Your task to perform on an android device: Go to eBay Image 0: 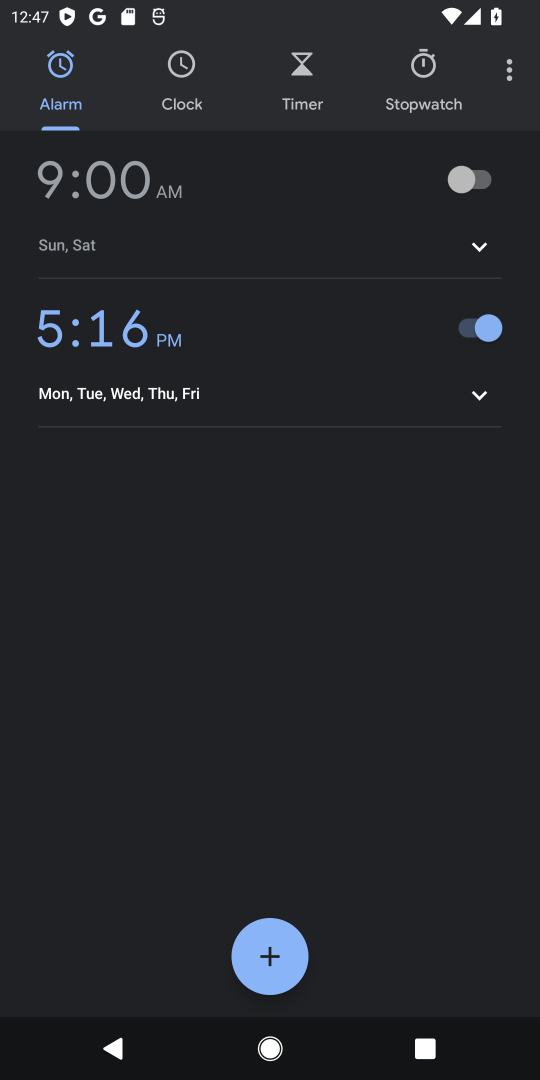
Step 0: press home button
Your task to perform on an android device: Go to eBay Image 1: 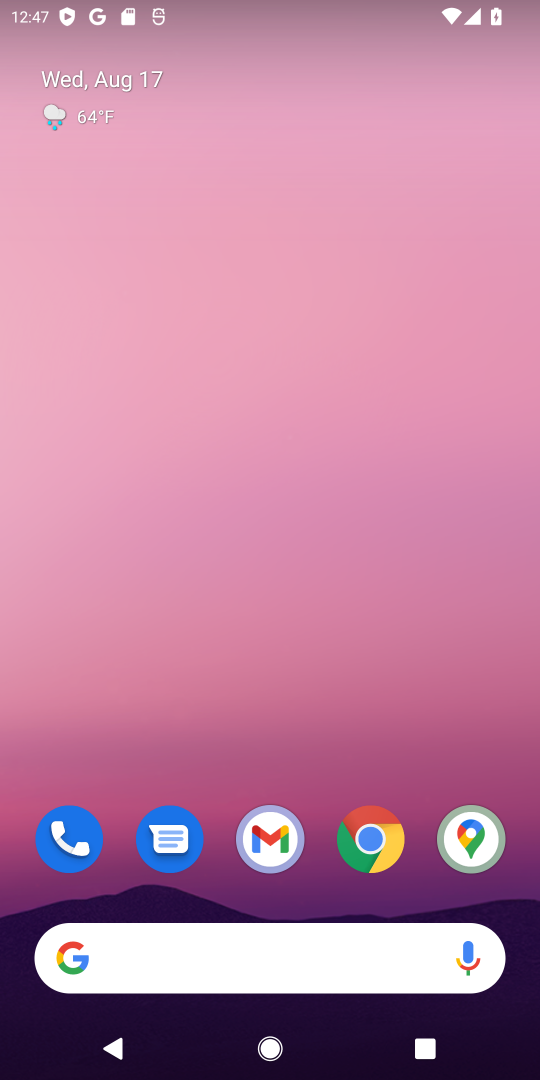
Step 1: click (371, 847)
Your task to perform on an android device: Go to eBay Image 2: 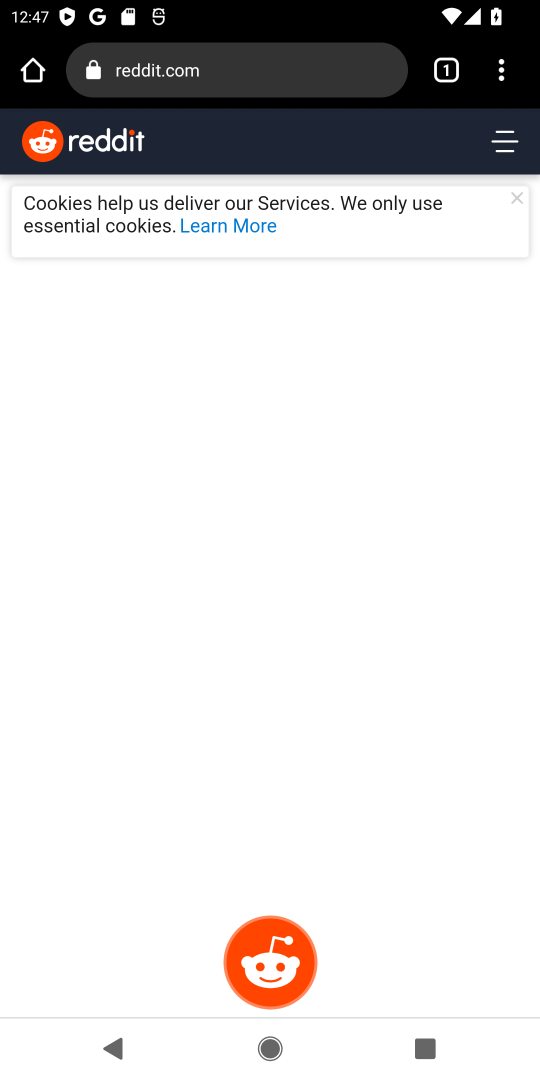
Step 2: click (307, 86)
Your task to perform on an android device: Go to eBay Image 3: 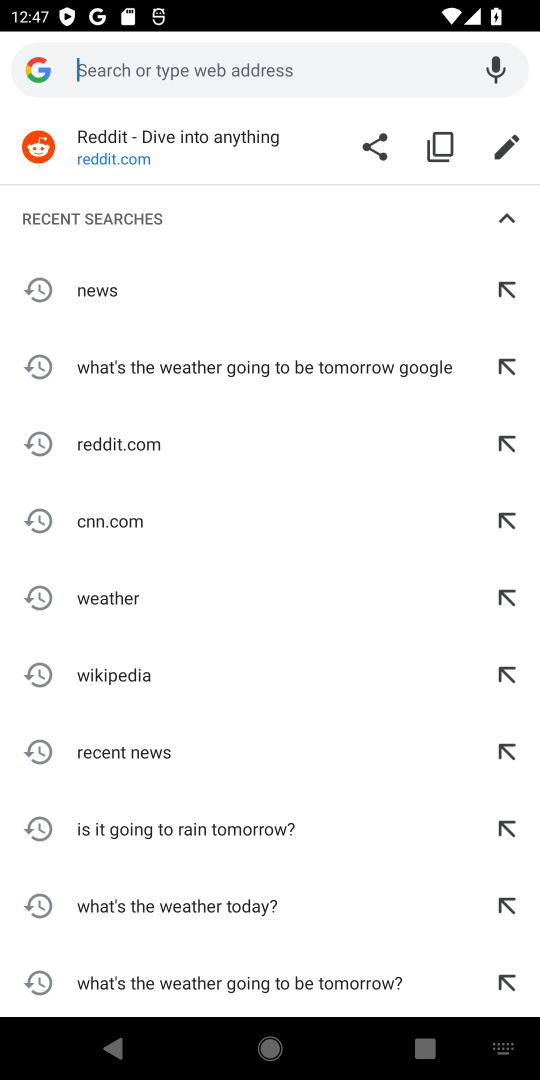
Step 3: type "eBay"
Your task to perform on an android device: Go to eBay Image 4: 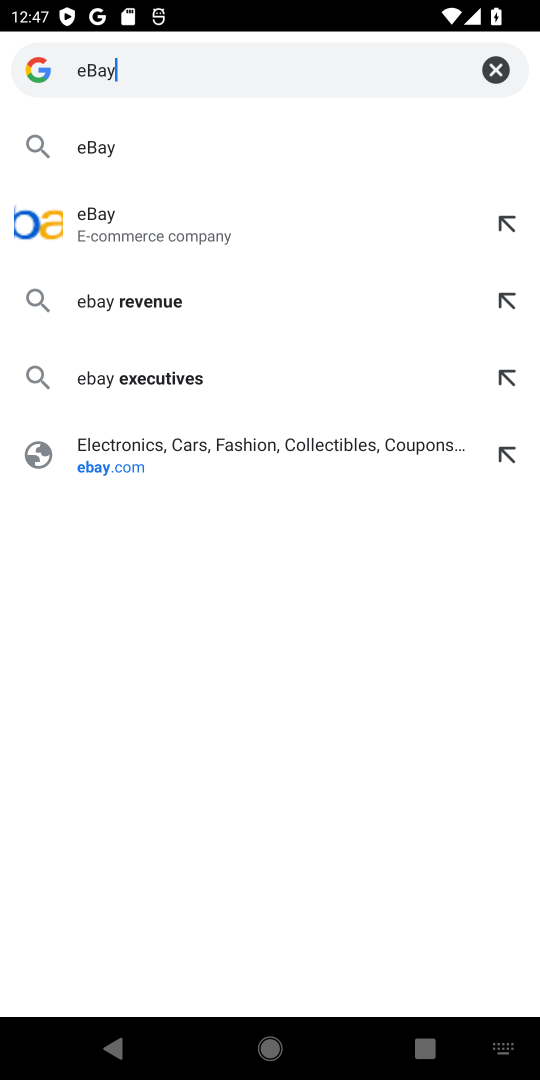
Step 4: click (92, 154)
Your task to perform on an android device: Go to eBay Image 5: 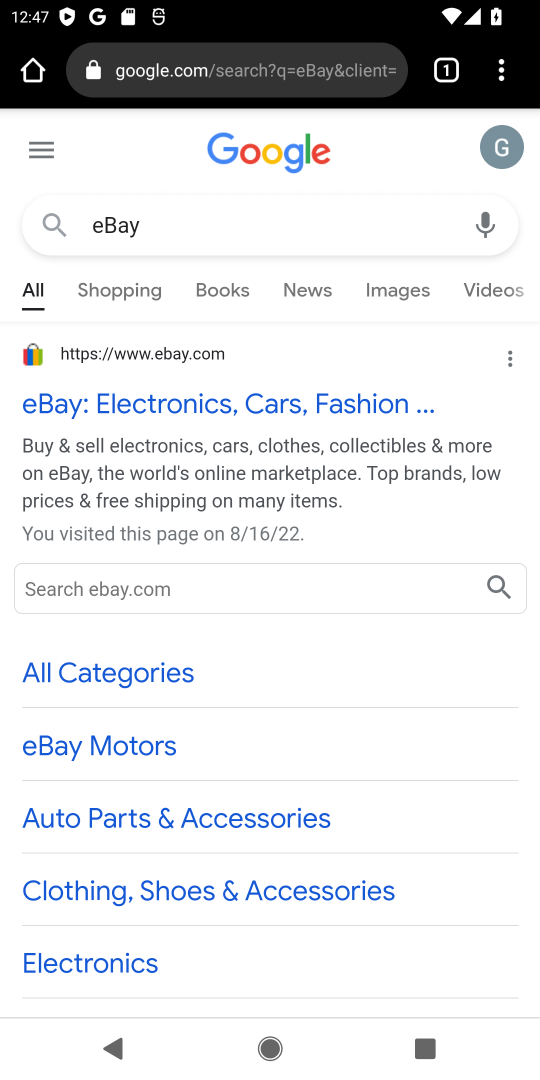
Step 5: click (157, 412)
Your task to perform on an android device: Go to eBay Image 6: 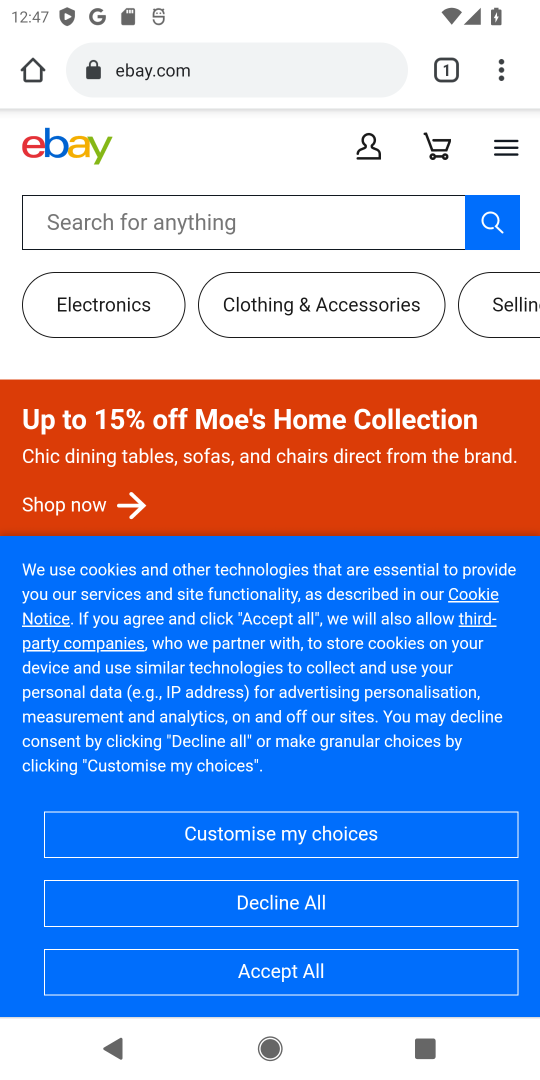
Step 6: click (302, 966)
Your task to perform on an android device: Go to eBay Image 7: 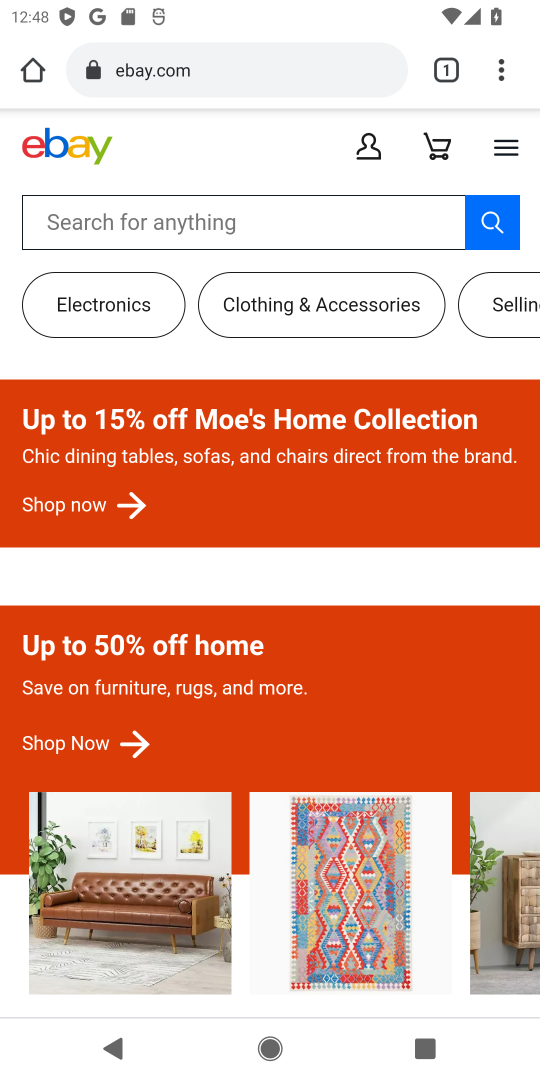
Step 7: task complete